Your task to perform on an android device: open the mobile data screen to see how much data has been used Image 0: 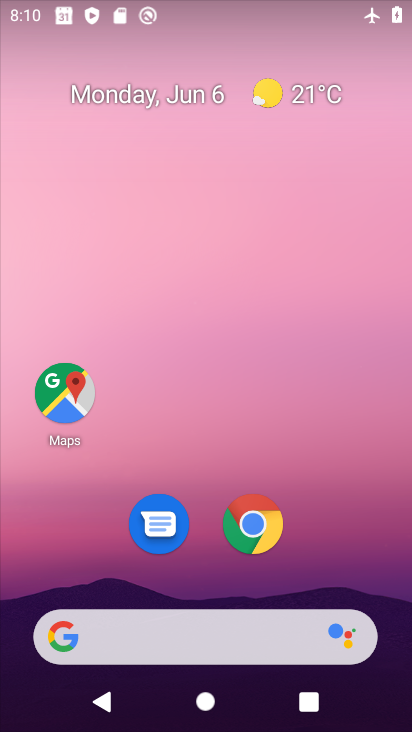
Step 0: drag from (220, 434) to (213, 81)
Your task to perform on an android device: open the mobile data screen to see how much data has been used Image 1: 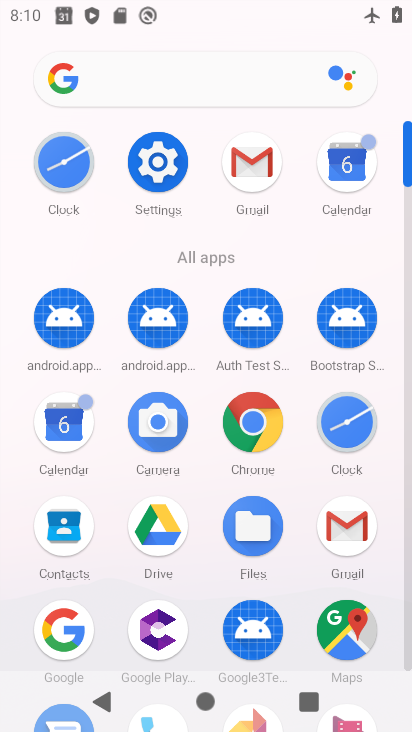
Step 1: click (156, 168)
Your task to perform on an android device: open the mobile data screen to see how much data has been used Image 2: 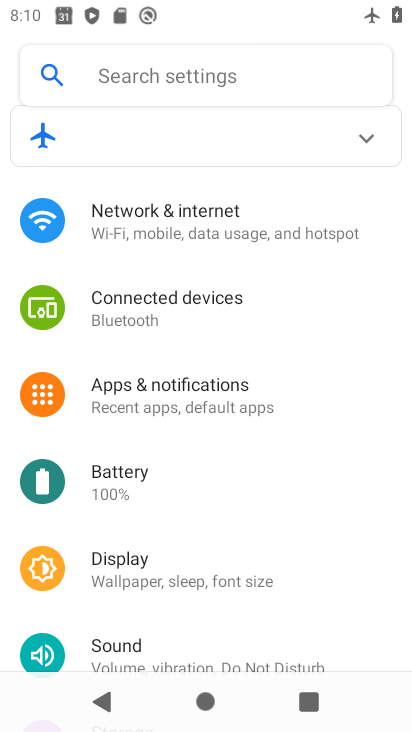
Step 2: click (178, 217)
Your task to perform on an android device: open the mobile data screen to see how much data has been used Image 3: 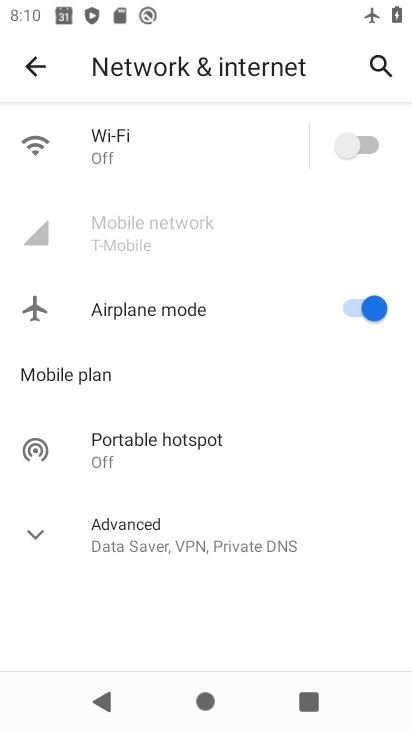
Step 3: click (354, 300)
Your task to perform on an android device: open the mobile data screen to see how much data has been used Image 4: 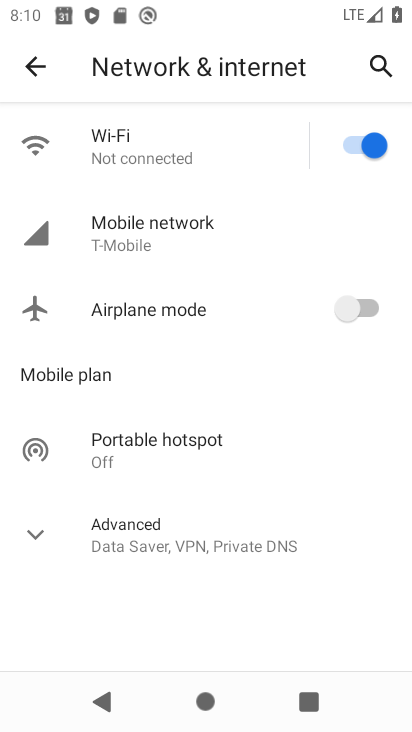
Step 4: click (269, 231)
Your task to perform on an android device: open the mobile data screen to see how much data has been used Image 5: 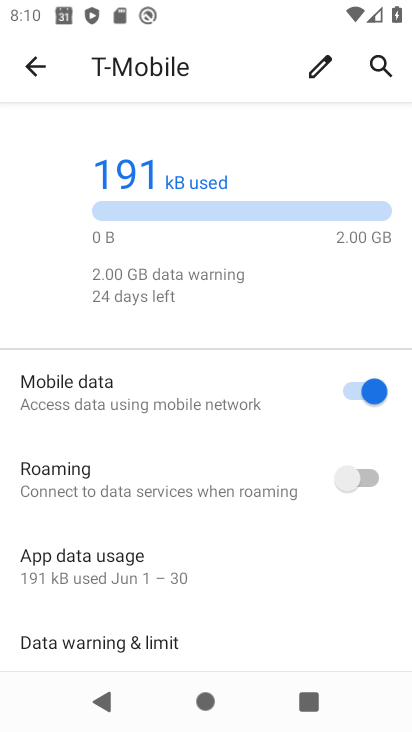
Step 5: task complete